Your task to perform on an android device: Play the last video I watched on Youtube Image 0: 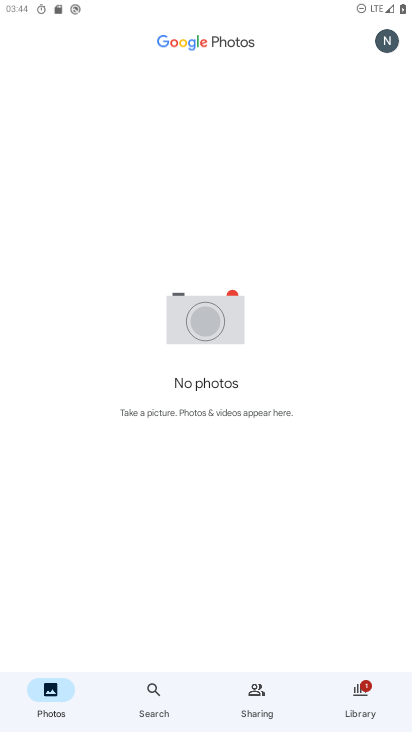
Step 0: press home button
Your task to perform on an android device: Play the last video I watched on Youtube Image 1: 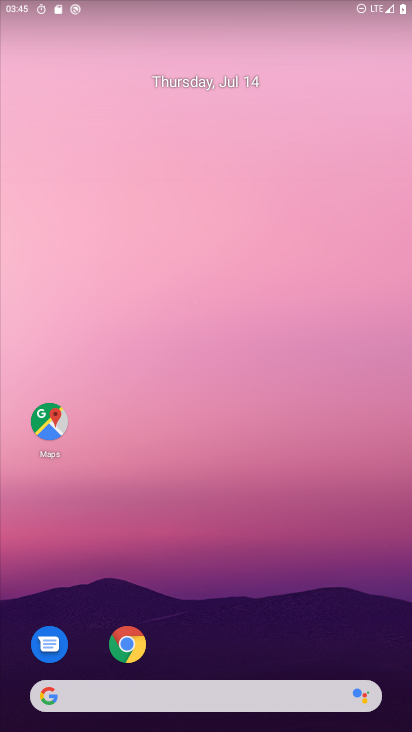
Step 1: drag from (254, 336) to (218, 30)
Your task to perform on an android device: Play the last video I watched on Youtube Image 2: 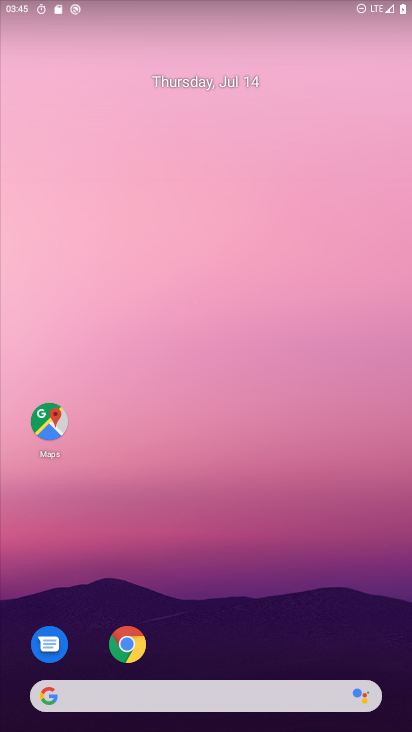
Step 2: drag from (333, 336) to (327, 19)
Your task to perform on an android device: Play the last video I watched on Youtube Image 3: 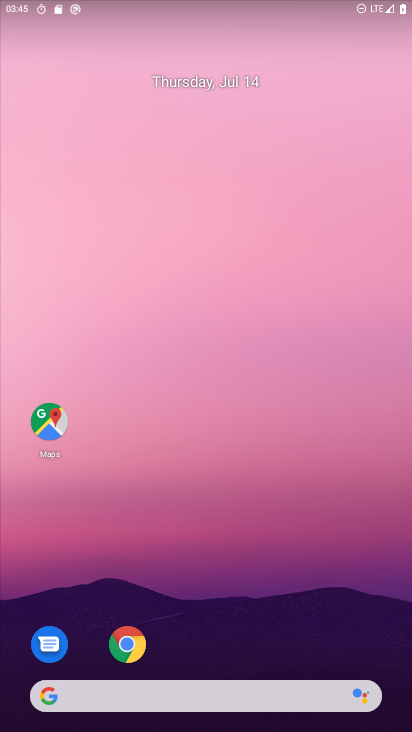
Step 3: drag from (298, 665) to (280, 74)
Your task to perform on an android device: Play the last video I watched on Youtube Image 4: 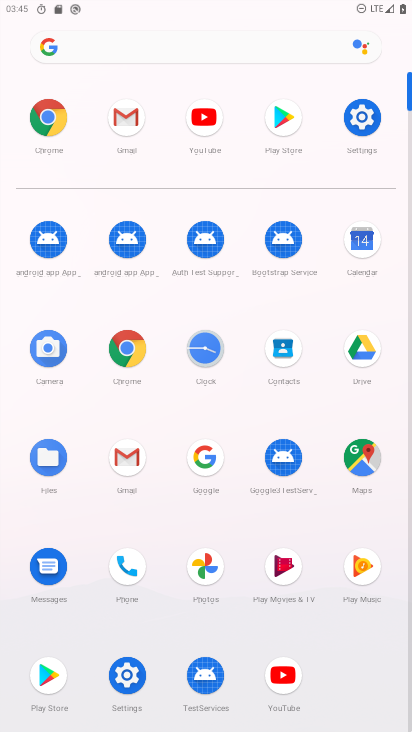
Step 4: click (209, 121)
Your task to perform on an android device: Play the last video I watched on Youtube Image 5: 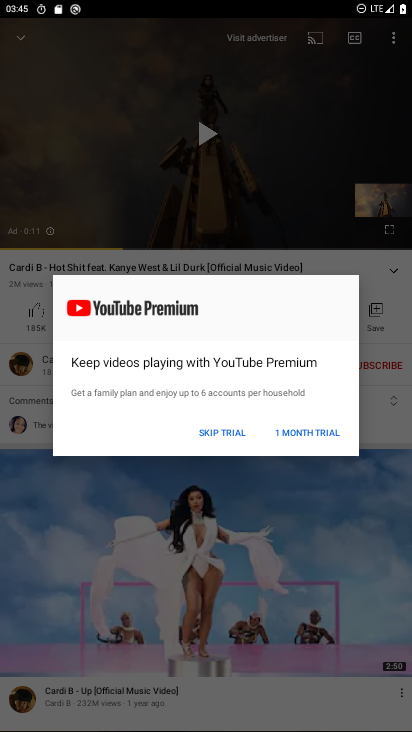
Step 5: press back button
Your task to perform on an android device: Play the last video I watched on Youtube Image 6: 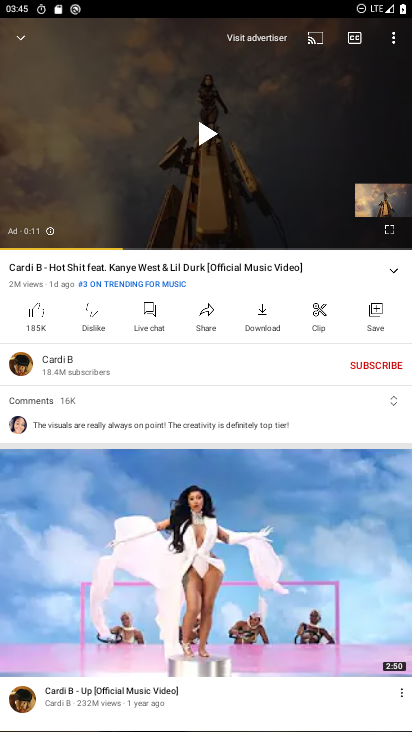
Step 6: press back button
Your task to perform on an android device: Play the last video I watched on Youtube Image 7: 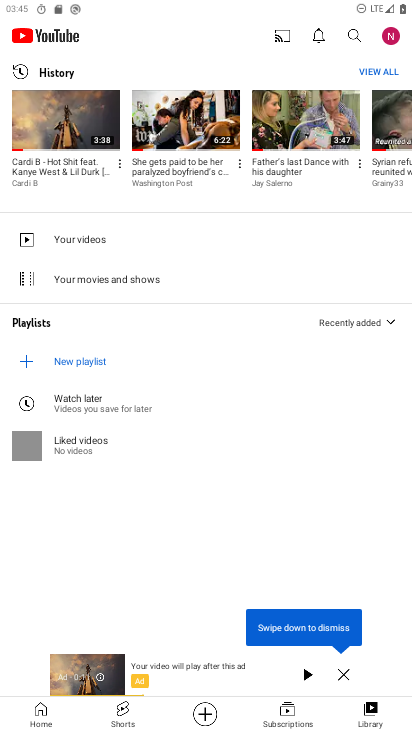
Step 7: click (81, 126)
Your task to perform on an android device: Play the last video I watched on Youtube Image 8: 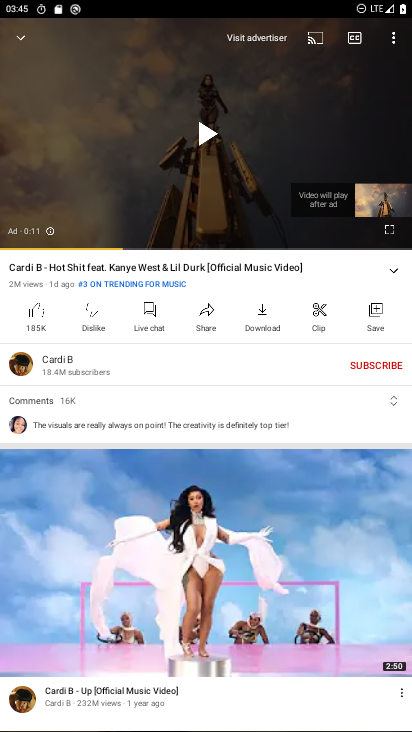
Step 8: click (206, 134)
Your task to perform on an android device: Play the last video I watched on Youtube Image 9: 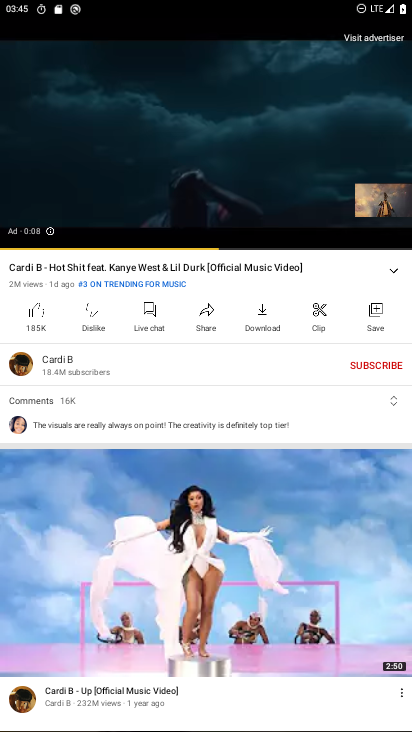
Step 9: task complete